Your task to perform on an android device: Search for pizza restaurants on Maps Image 0: 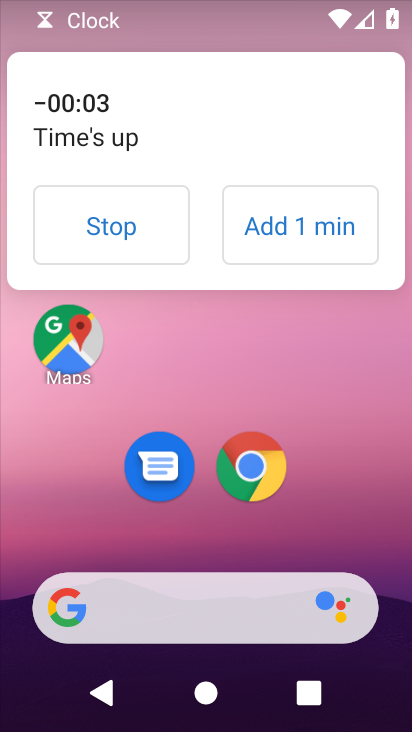
Step 0: click (110, 226)
Your task to perform on an android device: Search for pizza restaurants on Maps Image 1: 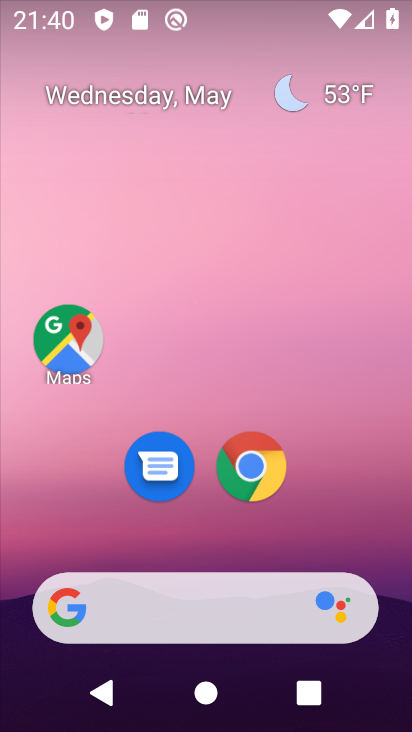
Step 1: drag from (233, 494) to (323, 129)
Your task to perform on an android device: Search for pizza restaurants on Maps Image 2: 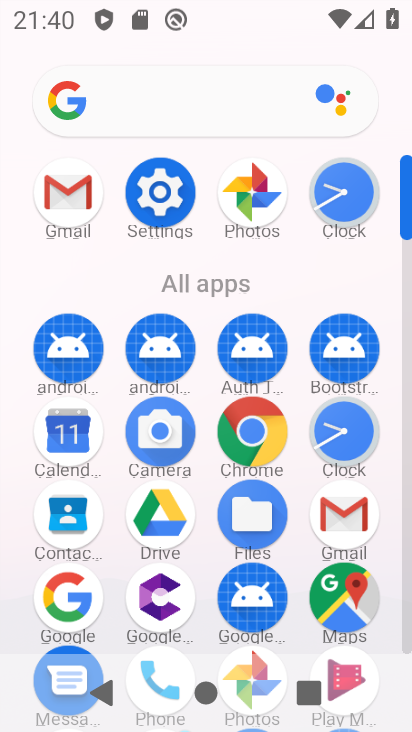
Step 2: drag from (214, 564) to (227, 240)
Your task to perform on an android device: Search for pizza restaurants on Maps Image 3: 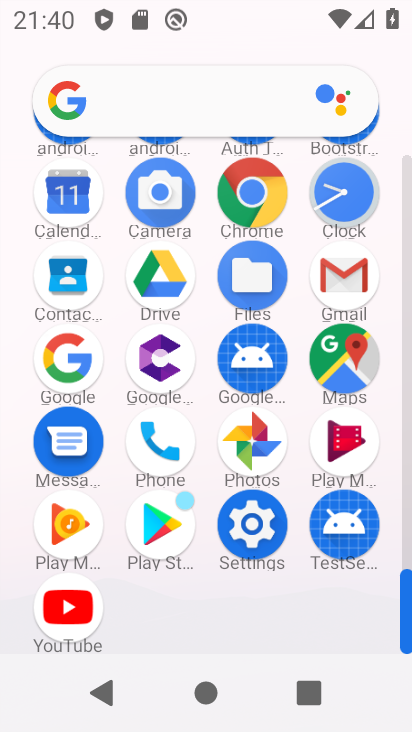
Step 3: click (348, 378)
Your task to perform on an android device: Search for pizza restaurants on Maps Image 4: 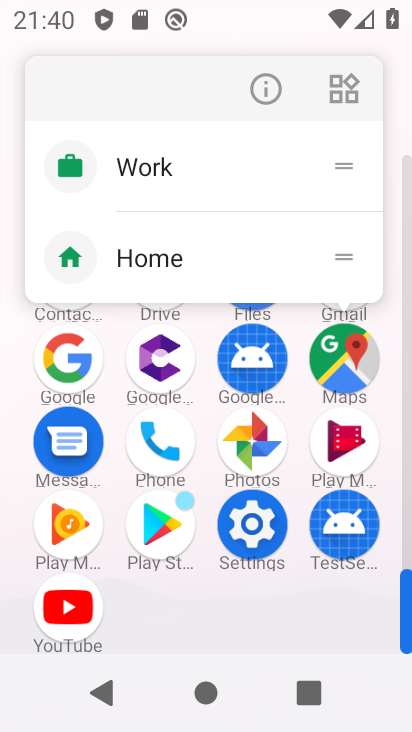
Step 4: click (265, 99)
Your task to perform on an android device: Search for pizza restaurants on Maps Image 5: 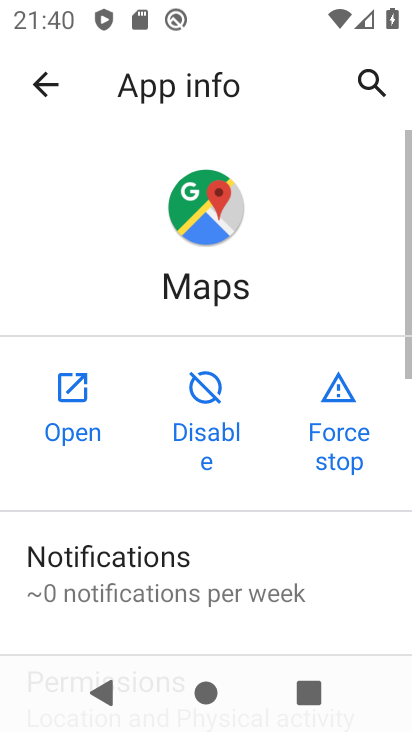
Step 5: click (75, 395)
Your task to perform on an android device: Search for pizza restaurants on Maps Image 6: 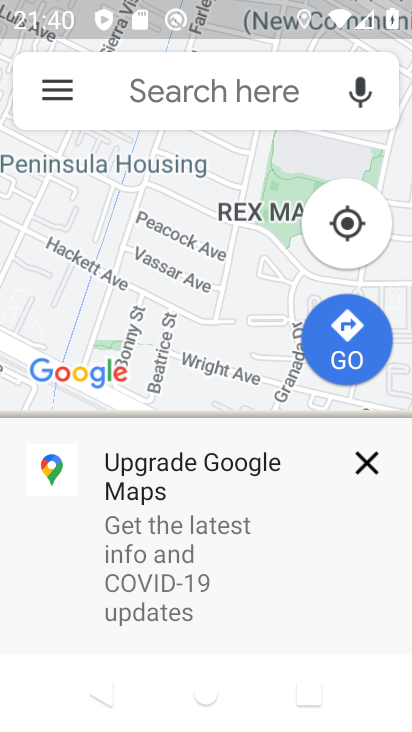
Step 6: click (96, 73)
Your task to perform on an android device: Search for pizza restaurants on Maps Image 7: 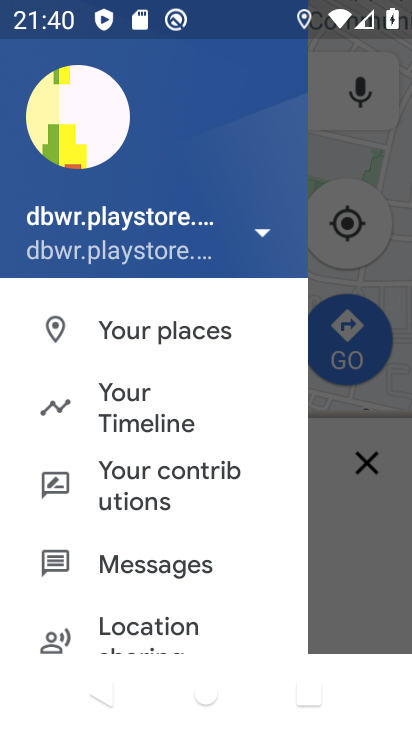
Step 7: press back button
Your task to perform on an android device: Search for pizza restaurants on Maps Image 8: 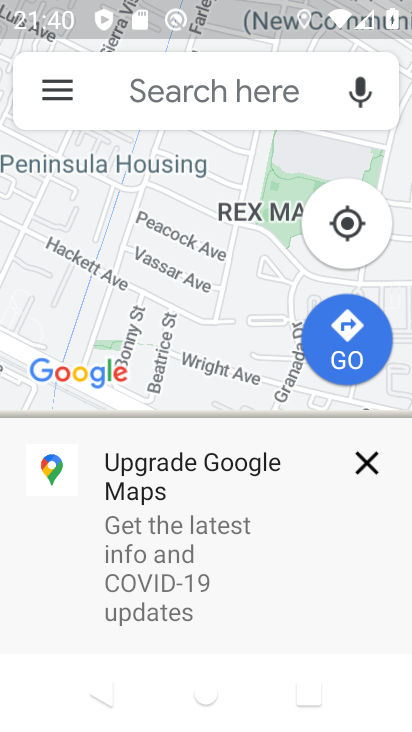
Step 8: drag from (217, 603) to (278, 108)
Your task to perform on an android device: Search for pizza restaurants on Maps Image 9: 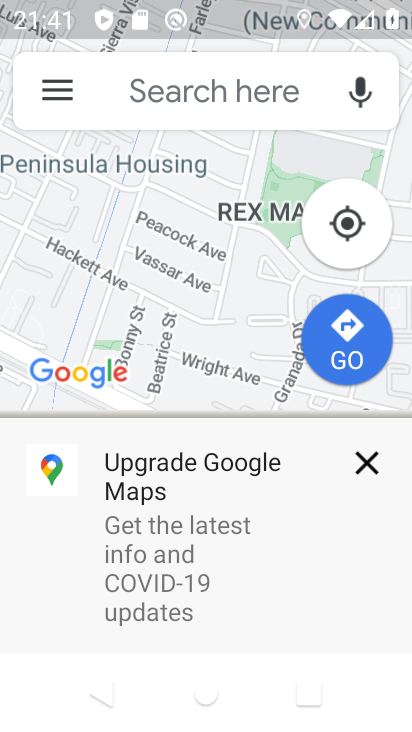
Step 9: click (361, 462)
Your task to perform on an android device: Search for pizza restaurants on Maps Image 10: 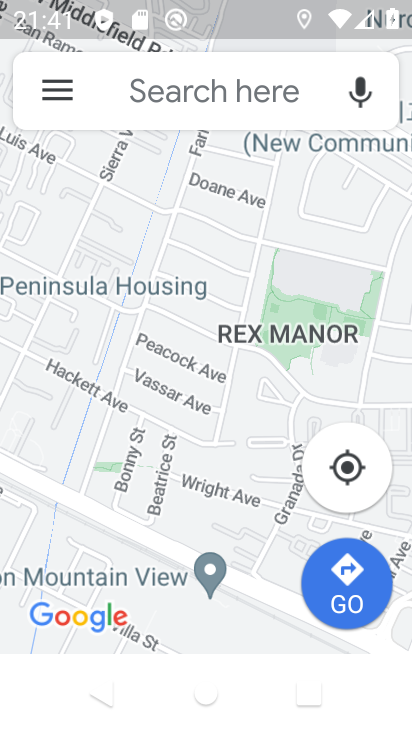
Step 10: click (201, 111)
Your task to perform on an android device: Search for pizza restaurants on Maps Image 11: 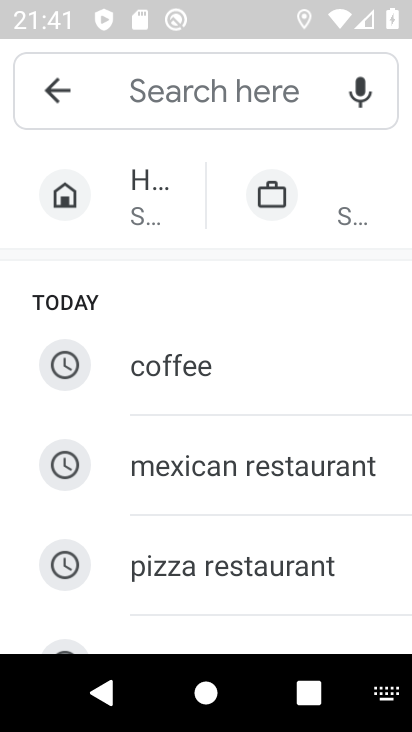
Step 11: drag from (246, 213) to (251, 120)
Your task to perform on an android device: Search for pizza restaurants on Maps Image 12: 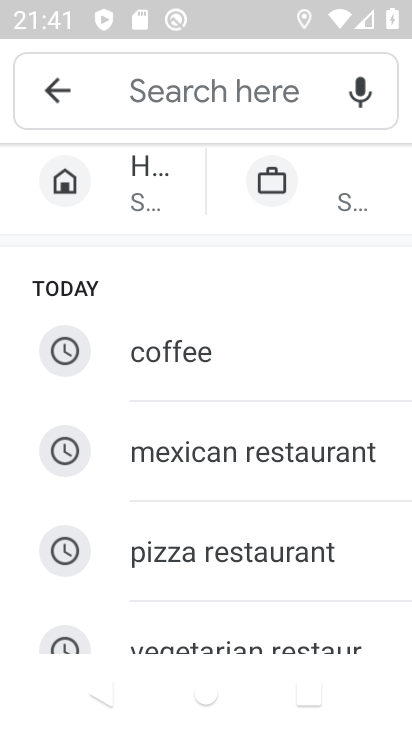
Step 12: click (214, 558)
Your task to perform on an android device: Search for pizza restaurants on Maps Image 13: 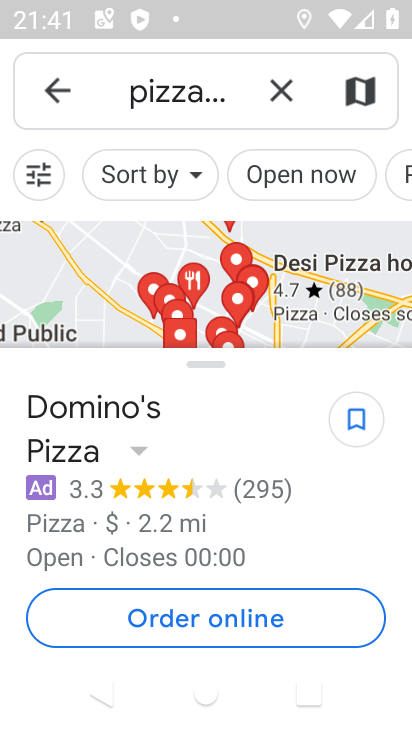
Step 13: task complete